Your task to perform on an android device: Turn off the flashlight Image 0: 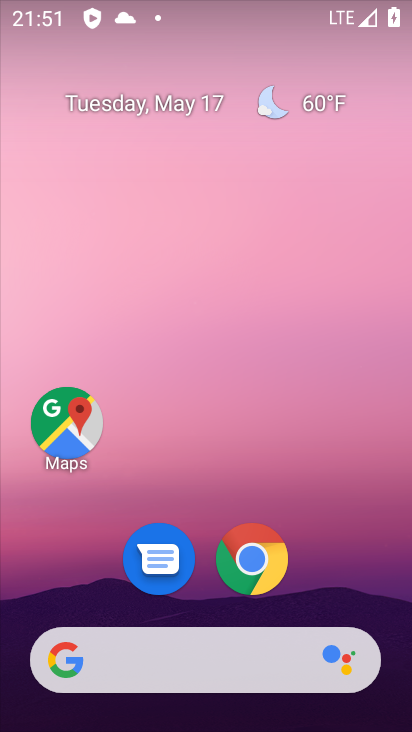
Step 0: drag from (367, 545) to (271, 116)
Your task to perform on an android device: Turn off the flashlight Image 1: 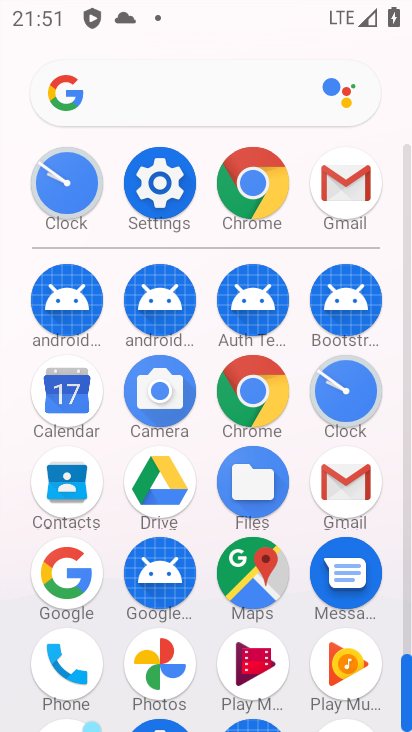
Step 1: click (175, 171)
Your task to perform on an android device: Turn off the flashlight Image 2: 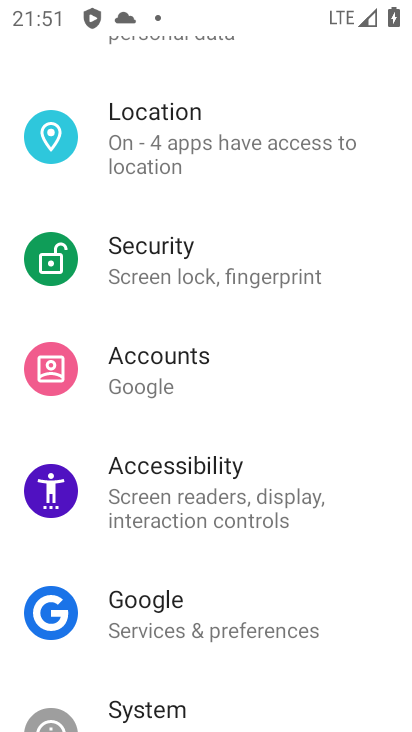
Step 2: drag from (175, 171) to (276, 653)
Your task to perform on an android device: Turn off the flashlight Image 3: 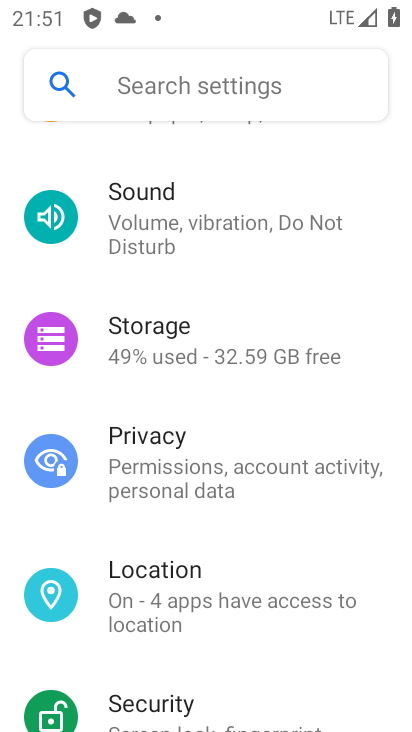
Step 3: drag from (260, 241) to (274, 568)
Your task to perform on an android device: Turn off the flashlight Image 4: 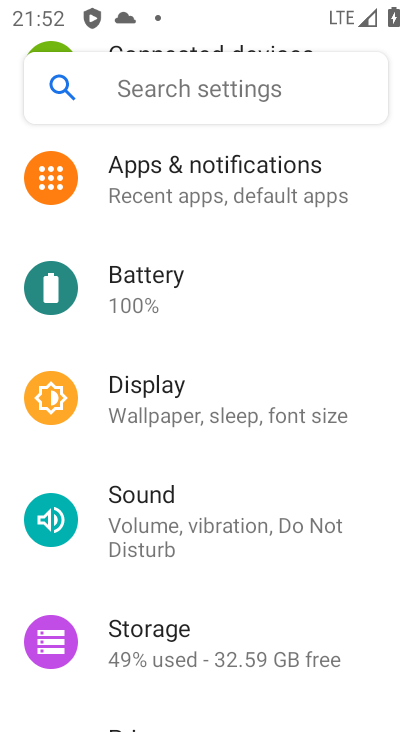
Step 4: drag from (255, 185) to (265, 611)
Your task to perform on an android device: Turn off the flashlight Image 5: 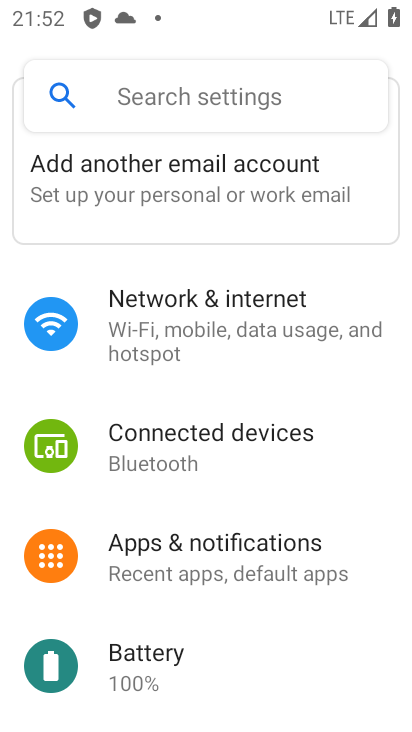
Step 5: drag from (252, 474) to (303, 149)
Your task to perform on an android device: Turn off the flashlight Image 6: 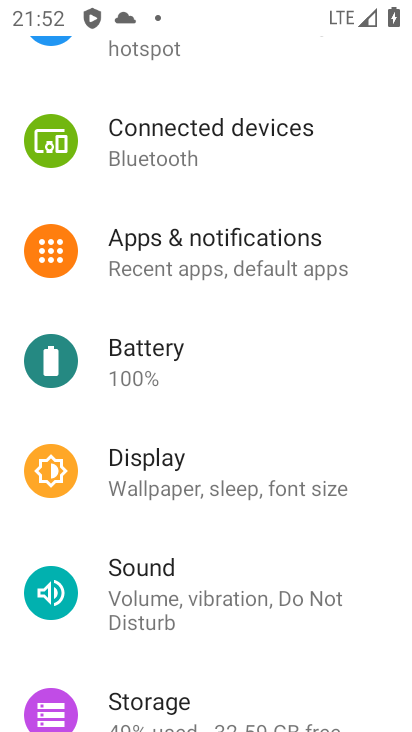
Step 6: click (203, 479)
Your task to perform on an android device: Turn off the flashlight Image 7: 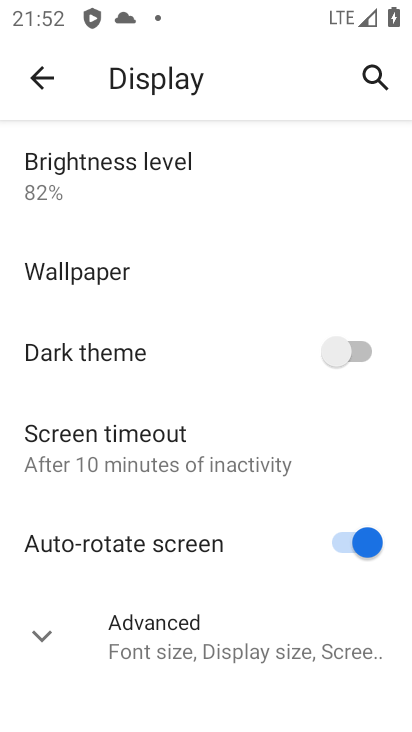
Step 7: task complete